Your task to perform on an android device: all mails in gmail Image 0: 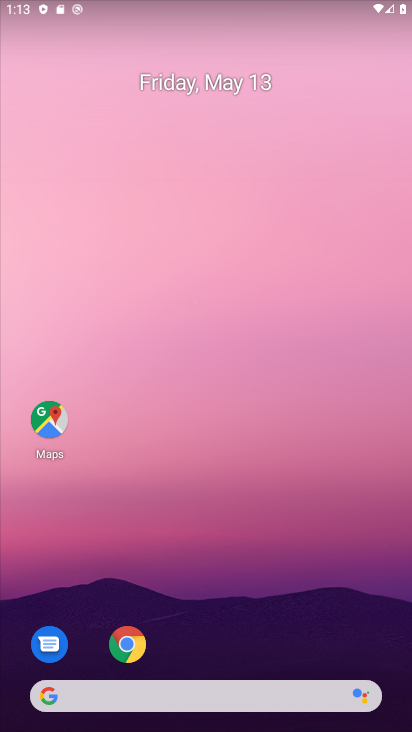
Step 0: drag from (298, 629) to (266, 147)
Your task to perform on an android device: all mails in gmail Image 1: 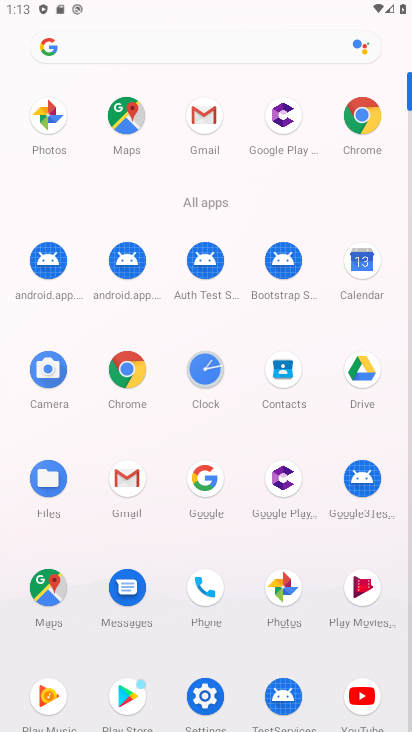
Step 1: click (204, 129)
Your task to perform on an android device: all mails in gmail Image 2: 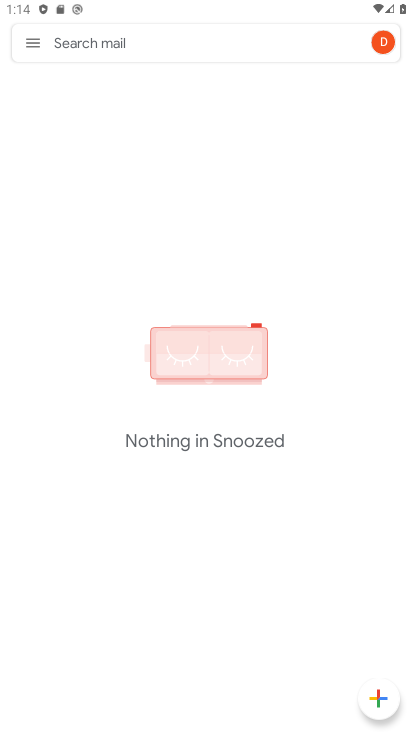
Step 2: click (35, 44)
Your task to perform on an android device: all mails in gmail Image 3: 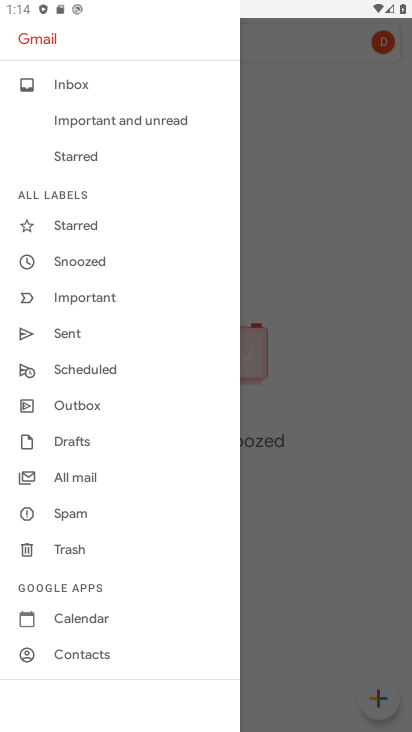
Step 3: click (96, 472)
Your task to perform on an android device: all mails in gmail Image 4: 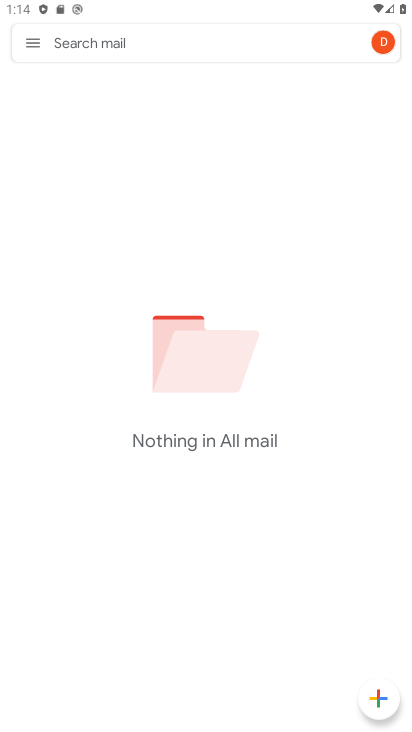
Step 4: task complete